Your task to perform on an android device: Go to battery settings Image 0: 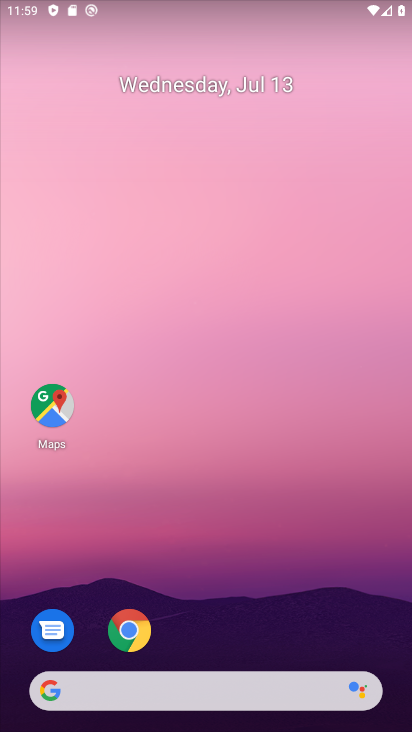
Step 0: drag from (299, 587) to (364, 9)
Your task to perform on an android device: Go to battery settings Image 1: 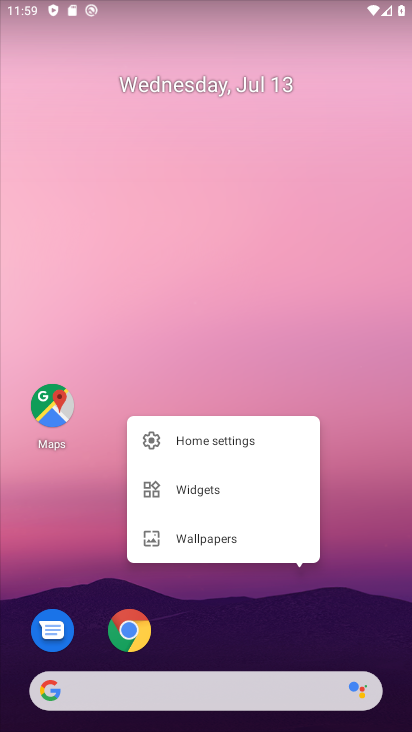
Step 1: click (322, 258)
Your task to perform on an android device: Go to battery settings Image 2: 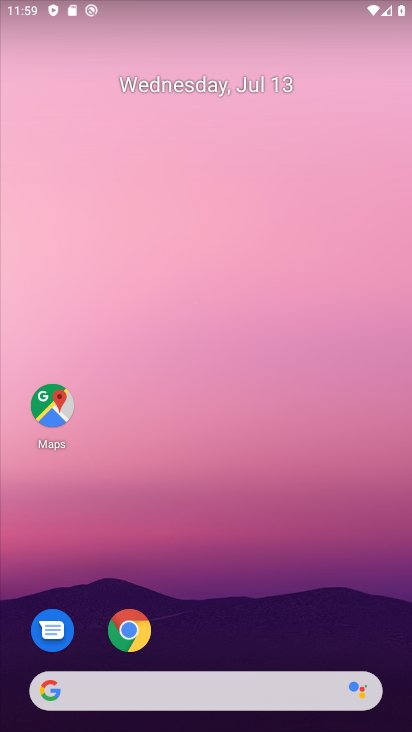
Step 2: drag from (323, 597) to (317, 218)
Your task to perform on an android device: Go to battery settings Image 3: 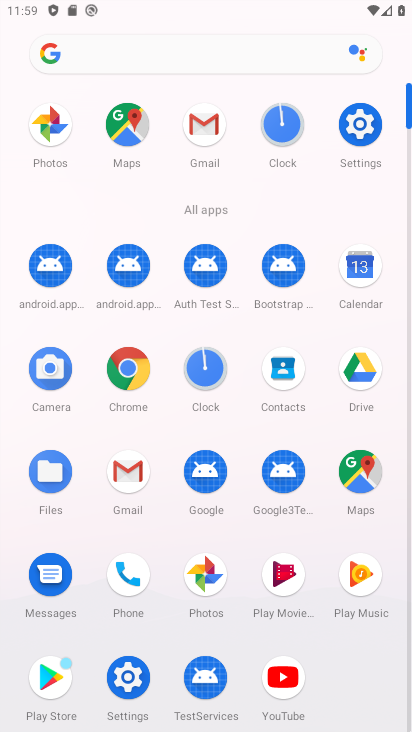
Step 3: click (357, 141)
Your task to perform on an android device: Go to battery settings Image 4: 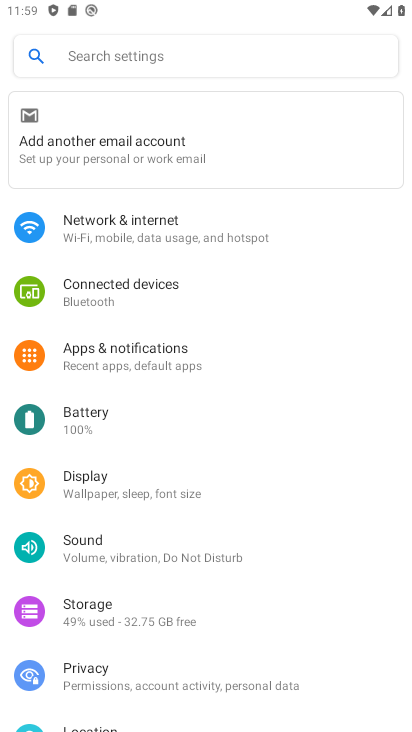
Step 4: click (83, 431)
Your task to perform on an android device: Go to battery settings Image 5: 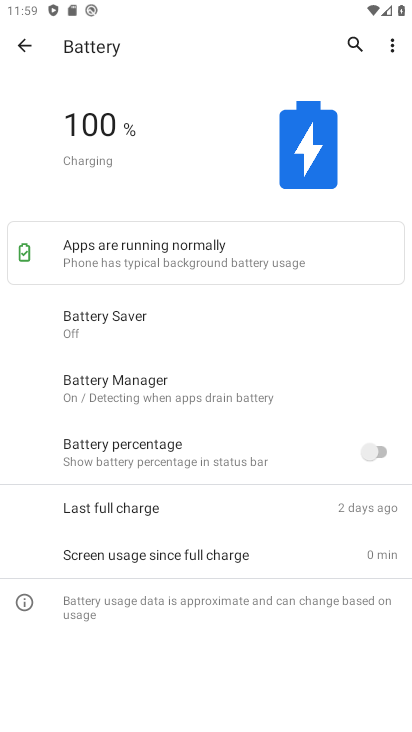
Step 5: task complete